Your task to perform on an android device: What's the price of the Galaxy phone? Image 0: 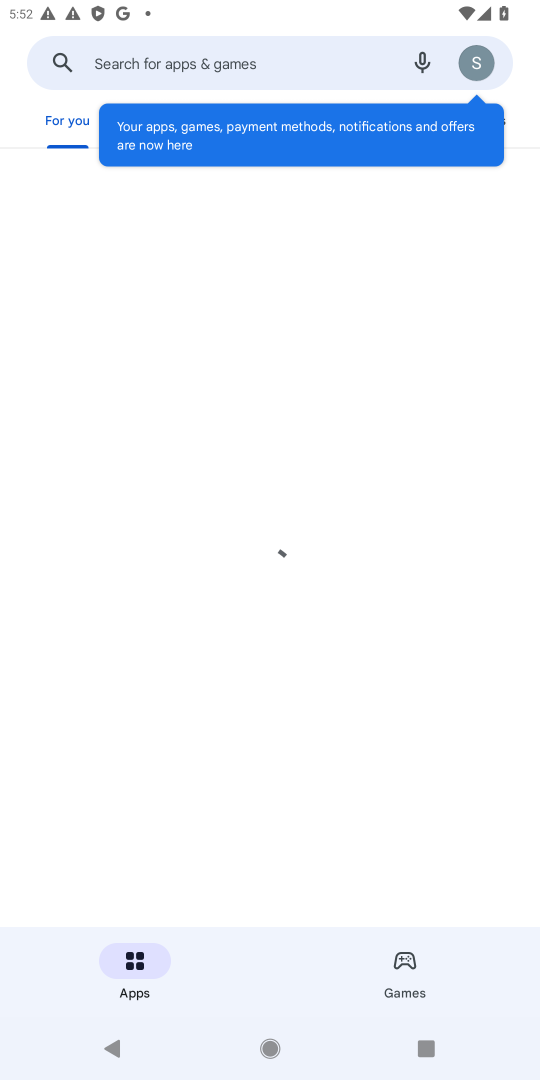
Step 0: press home button
Your task to perform on an android device: What's the price of the Galaxy phone? Image 1: 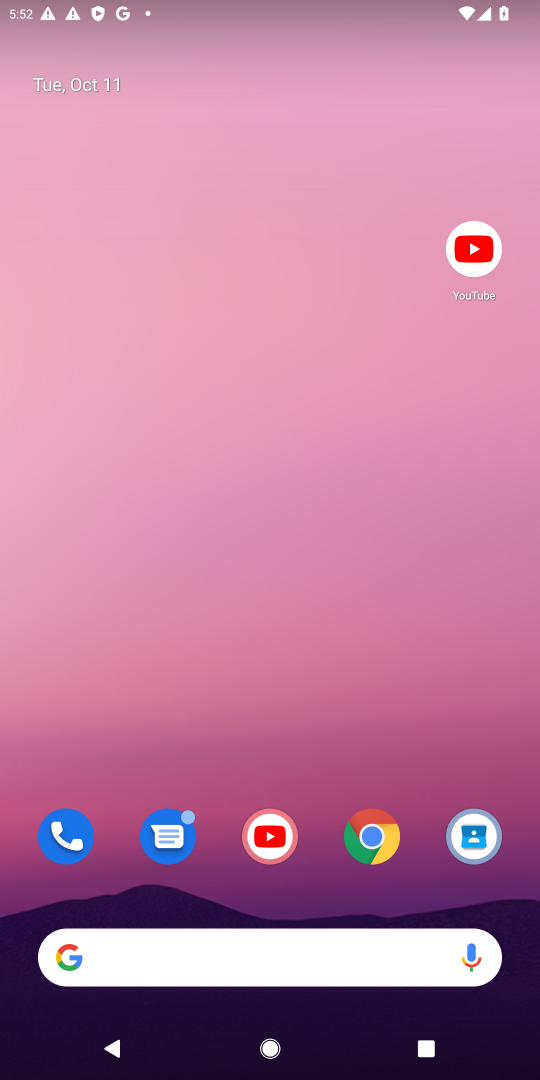
Step 1: click (366, 836)
Your task to perform on an android device: What's the price of the Galaxy phone? Image 2: 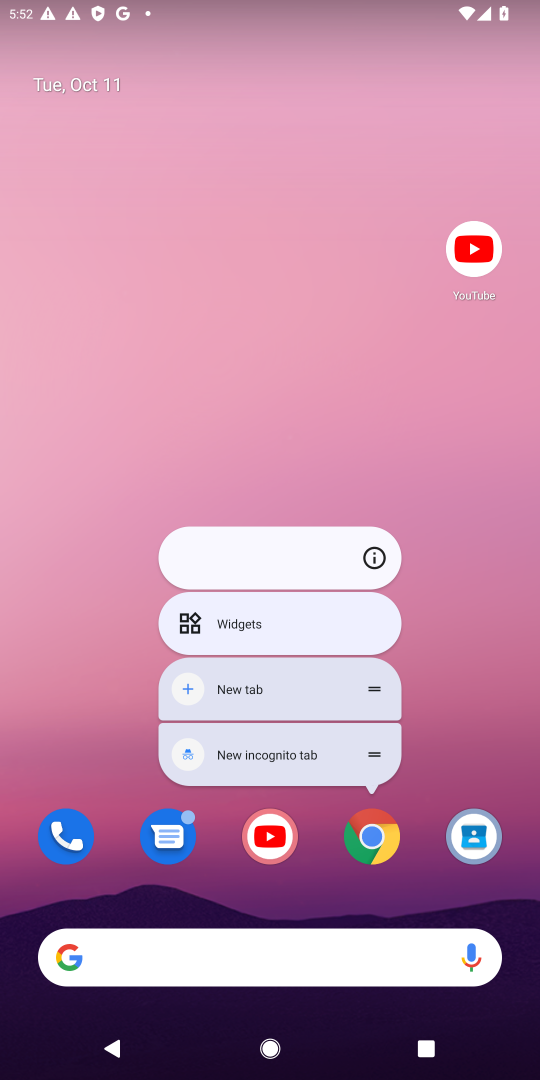
Step 2: click (366, 836)
Your task to perform on an android device: What's the price of the Galaxy phone? Image 3: 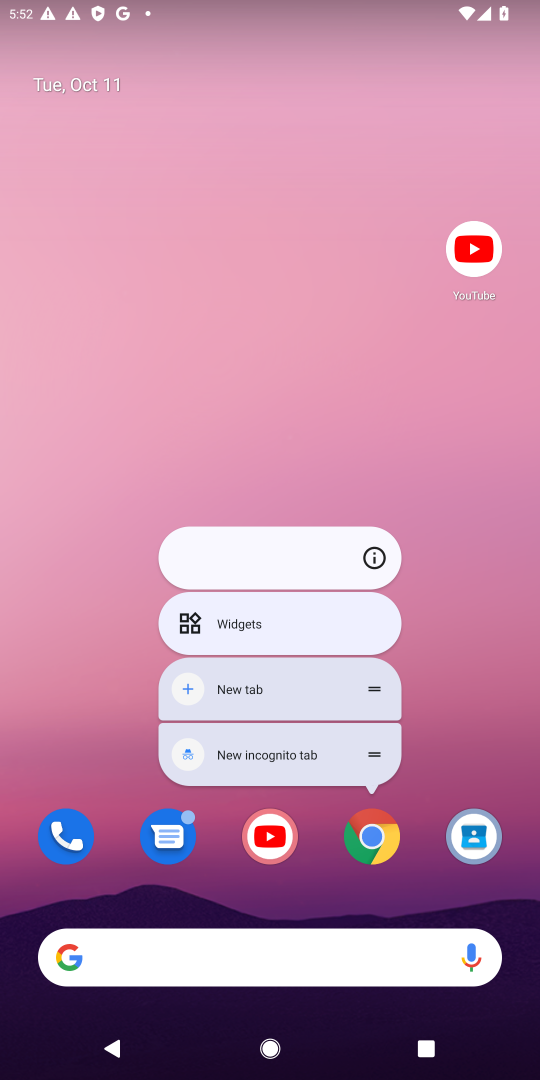
Step 3: click (366, 836)
Your task to perform on an android device: What's the price of the Galaxy phone? Image 4: 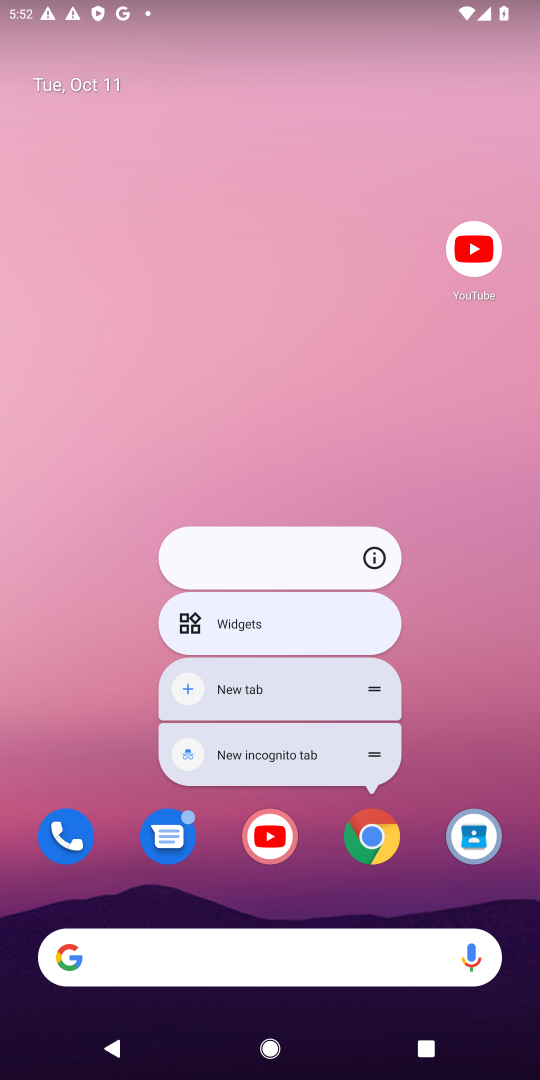
Step 4: click (381, 841)
Your task to perform on an android device: What's the price of the Galaxy phone? Image 5: 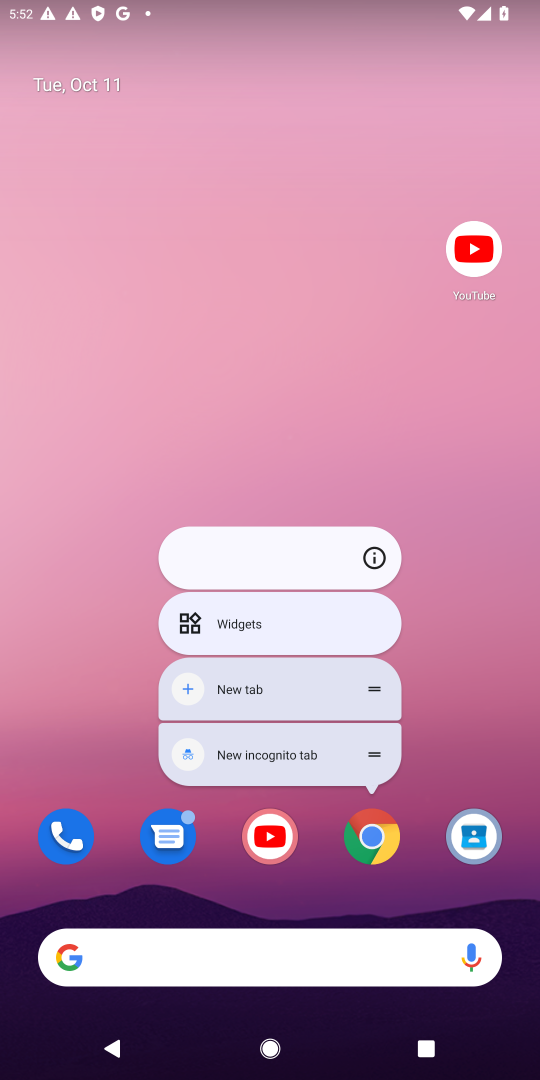
Step 5: click (395, 830)
Your task to perform on an android device: What's the price of the Galaxy phone? Image 6: 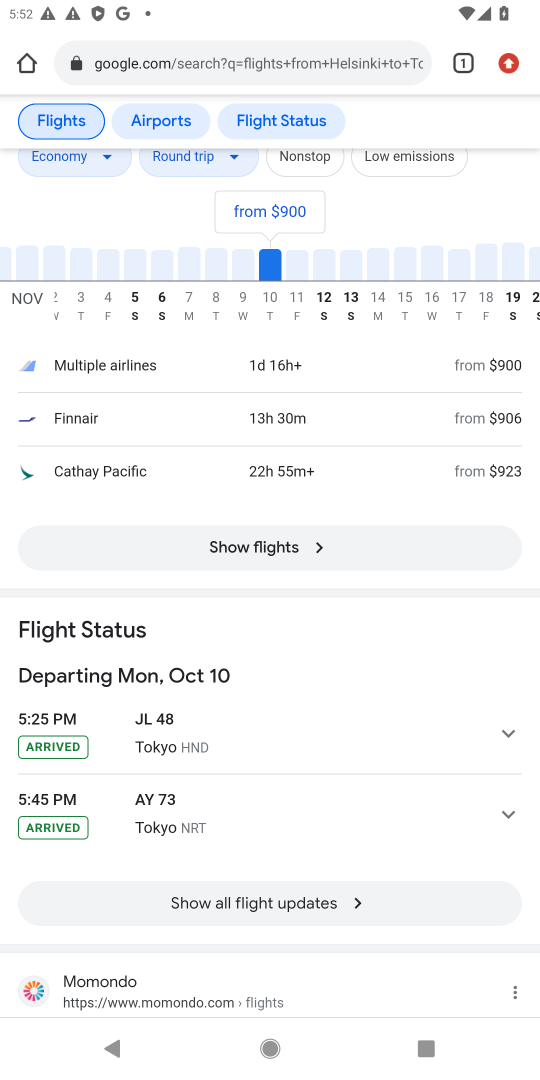
Step 6: click (358, 61)
Your task to perform on an android device: What's the price of the Galaxy phone? Image 7: 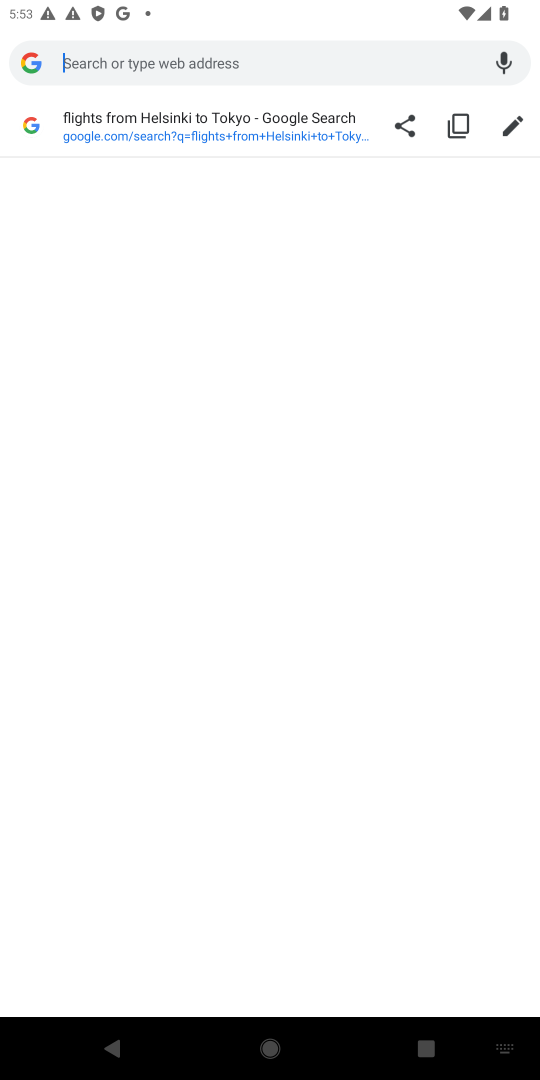
Step 7: press enter
Your task to perform on an android device: What's the price of the Galaxy phone? Image 8: 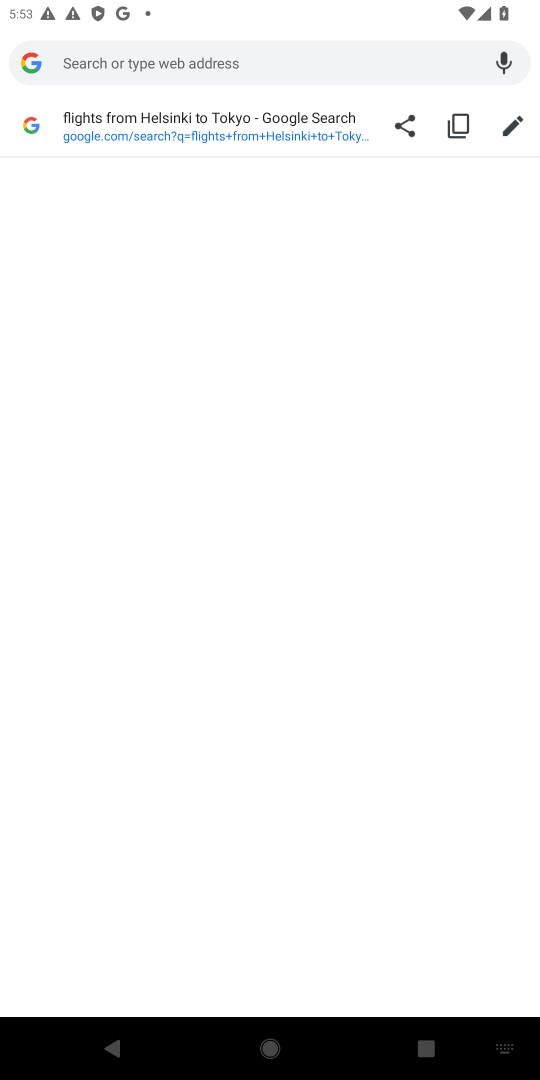
Step 8: type "price of the Galaxy phone"
Your task to perform on an android device: What's the price of the Galaxy phone? Image 9: 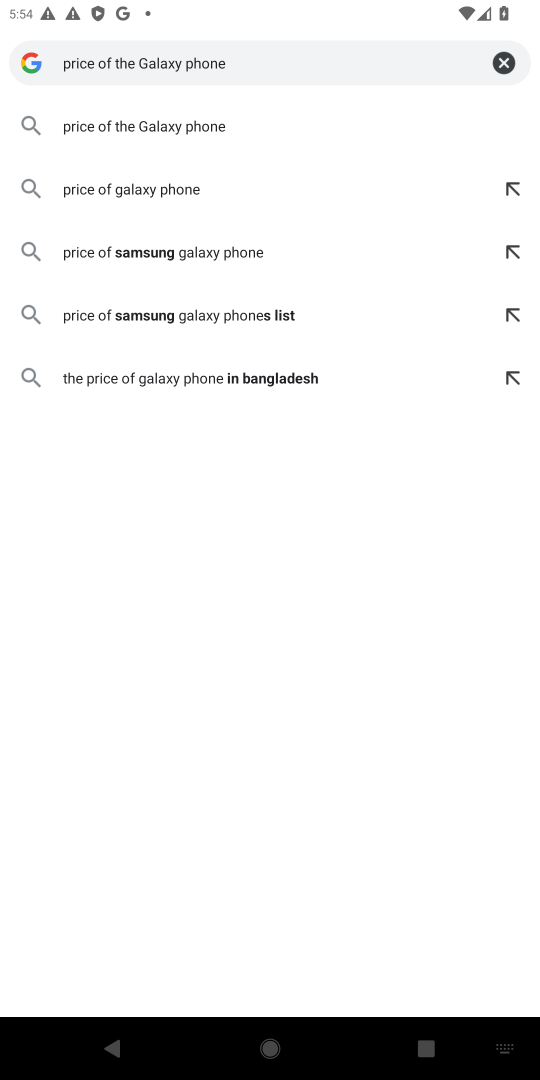
Step 9: click (119, 120)
Your task to perform on an android device: What's the price of the Galaxy phone? Image 10: 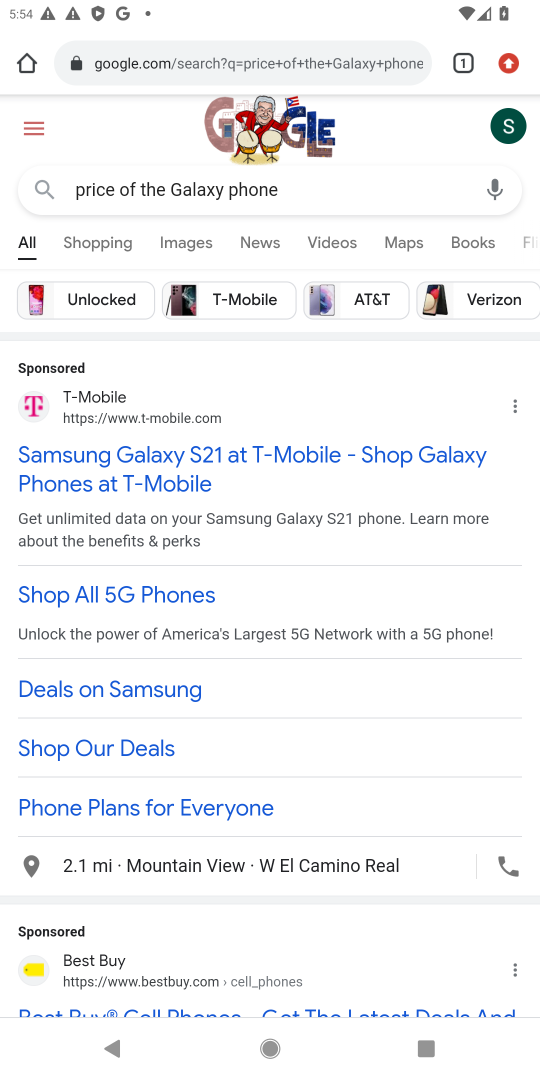
Step 10: task complete